Your task to perform on an android device: turn on wifi Image 0: 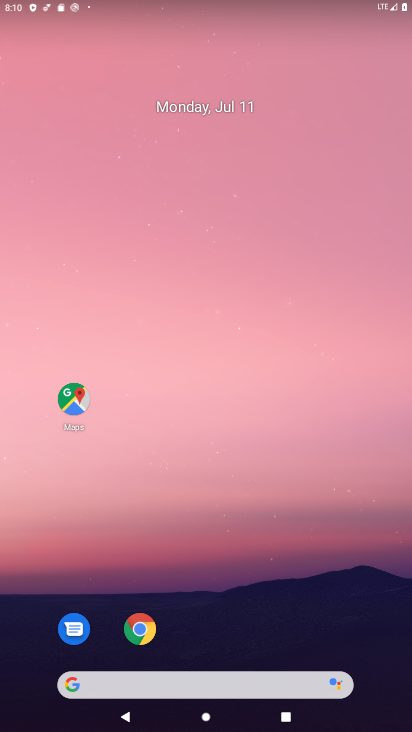
Step 0: drag from (249, 658) to (248, 428)
Your task to perform on an android device: turn on wifi Image 1: 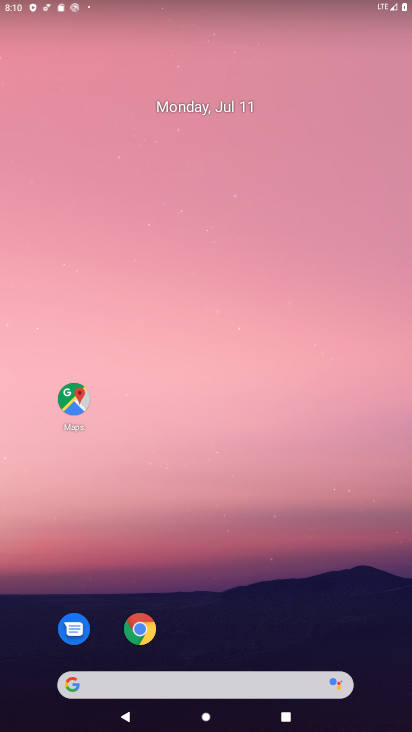
Step 1: drag from (249, 640) to (261, 22)
Your task to perform on an android device: turn on wifi Image 2: 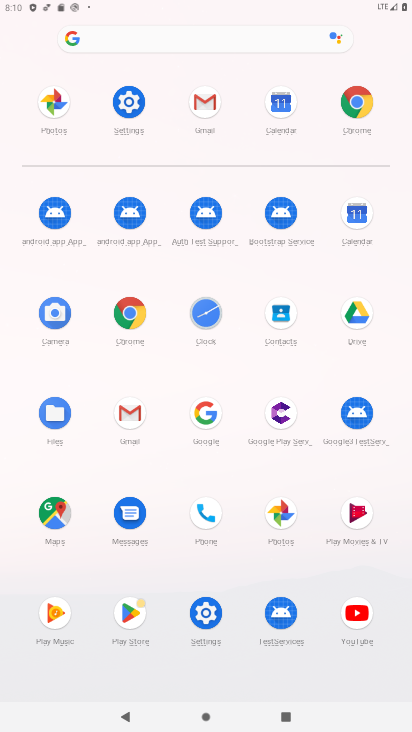
Step 2: click (114, 110)
Your task to perform on an android device: turn on wifi Image 3: 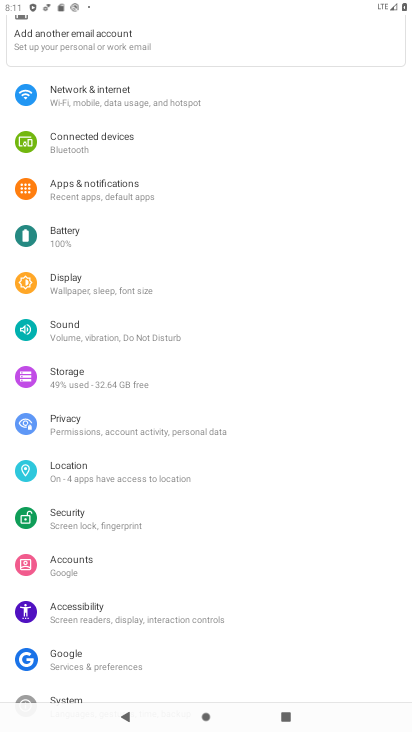
Step 3: click (114, 110)
Your task to perform on an android device: turn on wifi Image 4: 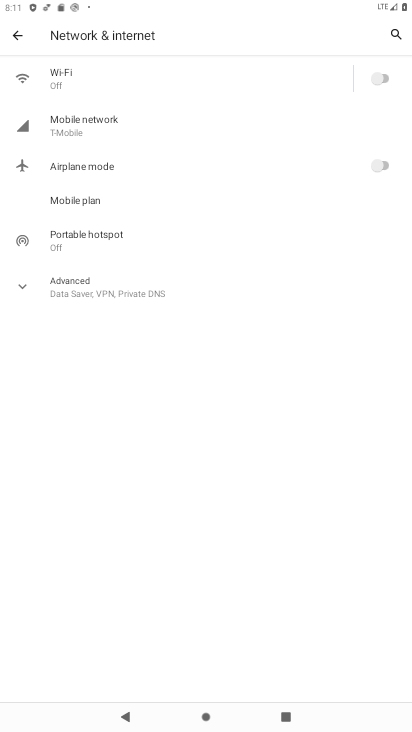
Step 4: click (375, 75)
Your task to perform on an android device: turn on wifi Image 5: 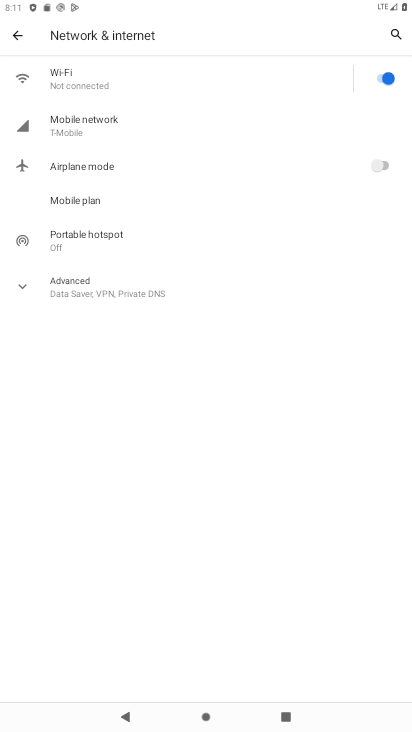
Step 5: task complete